Your task to perform on an android device: Is it going to rain today? Image 0: 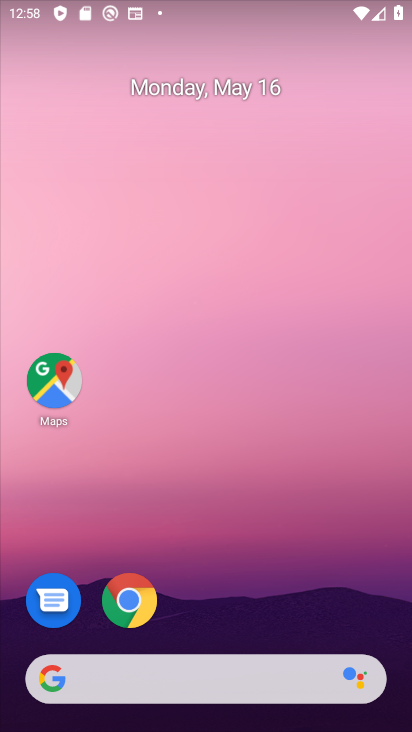
Step 0: click (261, 684)
Your task to perform on an android device: Is it going to rain today? Image 1: 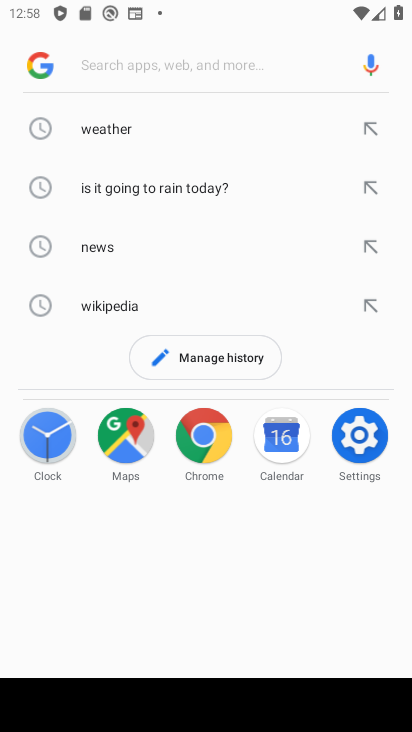
Step 1: click (149, 148)
Your task to perform on an android device: Is it going to rain today? Image 2: 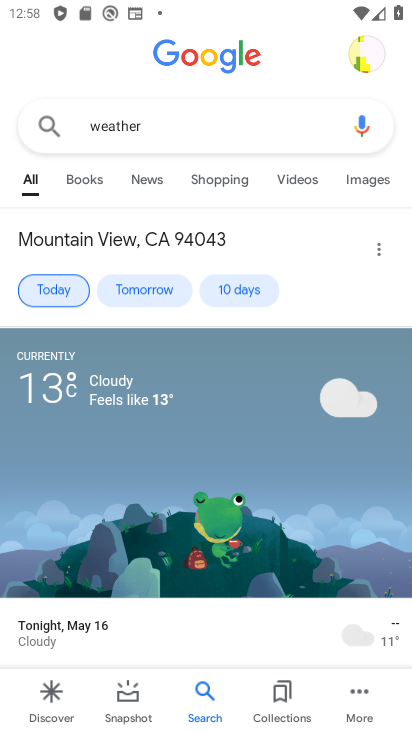
Step 2: task complete